Your task to perform on an android device: turn on translation in the chrome app Image 0: 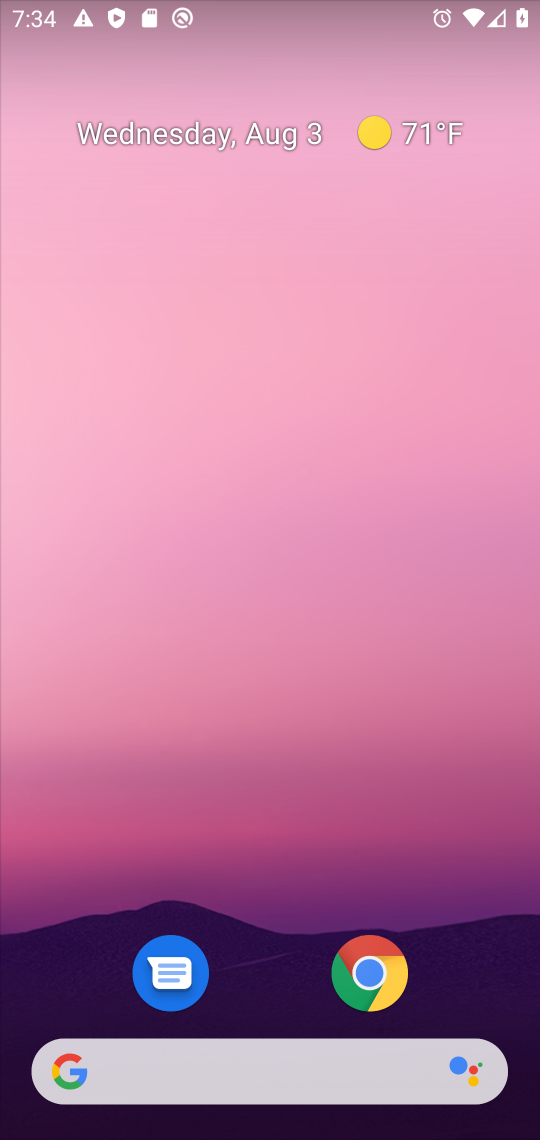
Step 0: click (376, 980)
Your task to perform on an android device: turn on translation in the chrome app Image 1: 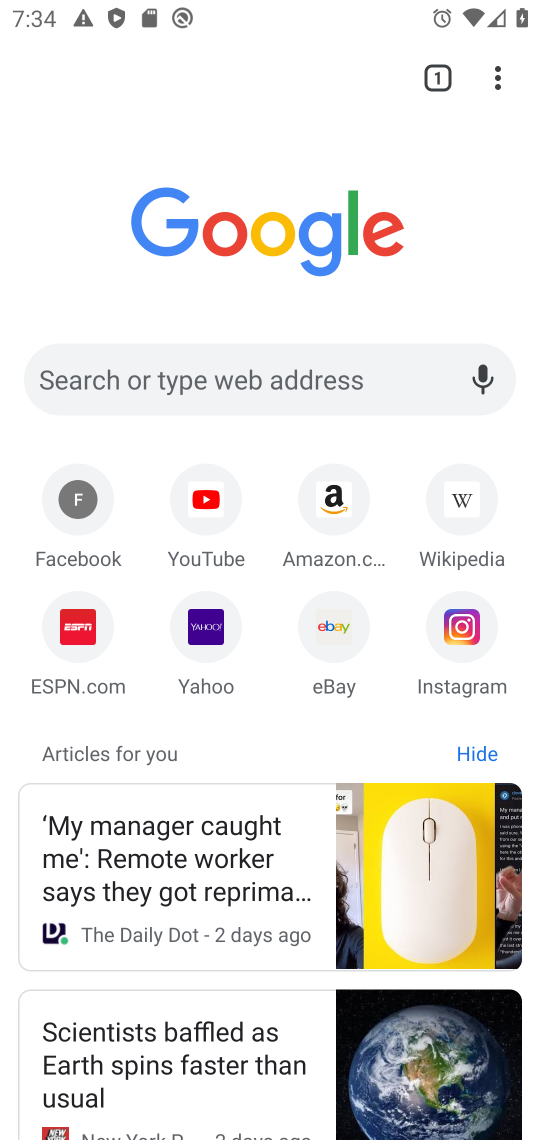
Step 1: click (504, 76)
Your task to perform on an android device: turn on translation in the chrome app Image 2: 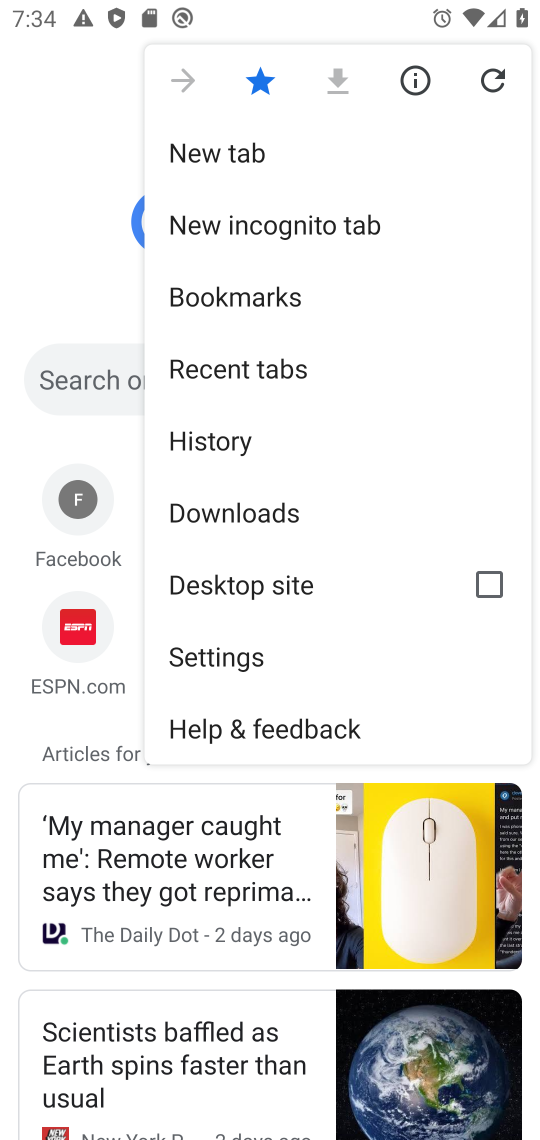
Step 2: click (231, 650)
Your task to perform on an android device: turn on translation in the chrome app Image 3: 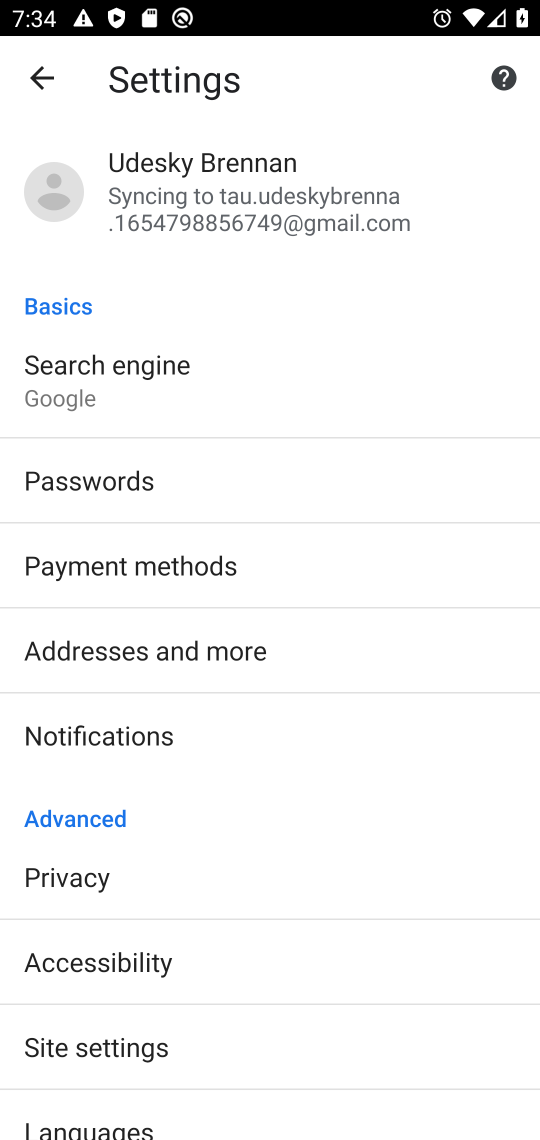
Step 3: click (26, 1122)
Your task to perform on an android device: turn on translation in the chrome app Image 4: 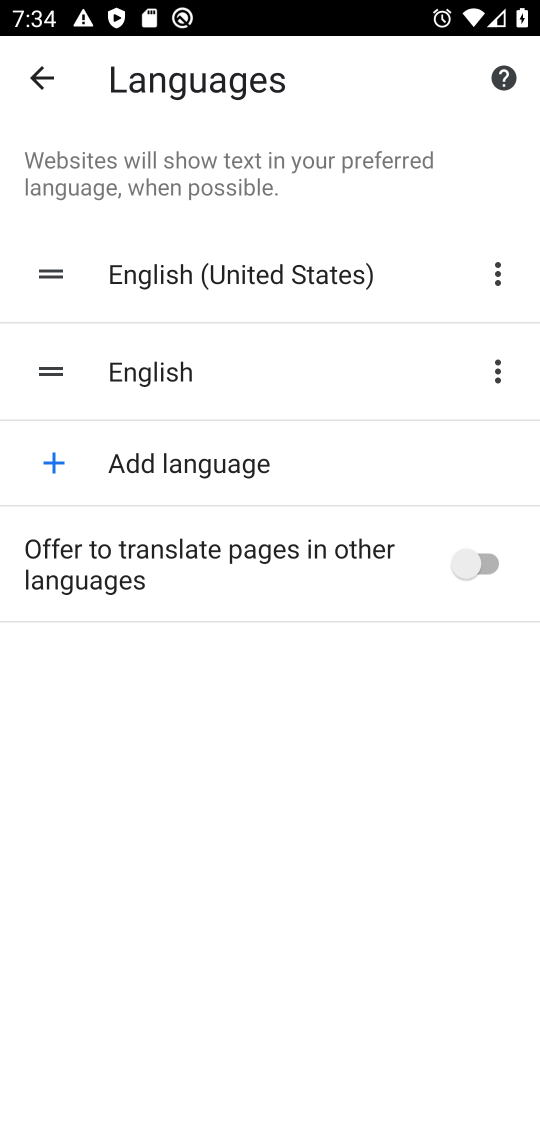
Step 4: click (479, 567)
Your task to perform on an android device: turn on translation in the chrome app Image 5: 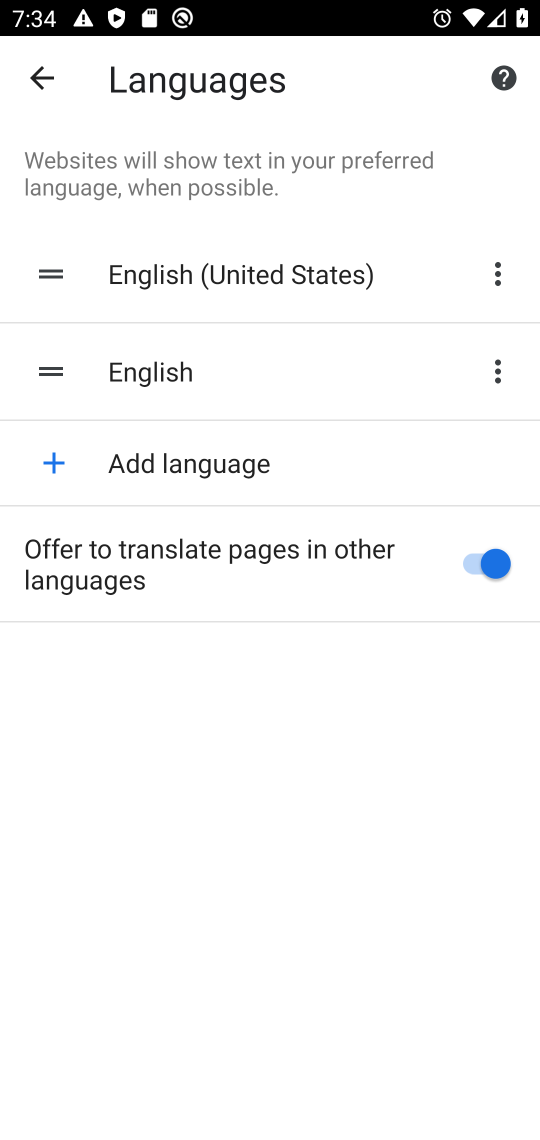
Step 5: task complete